Your task to perform on an android device: Open the calendar app, open the side menu, and click the "Day" option Image 0: 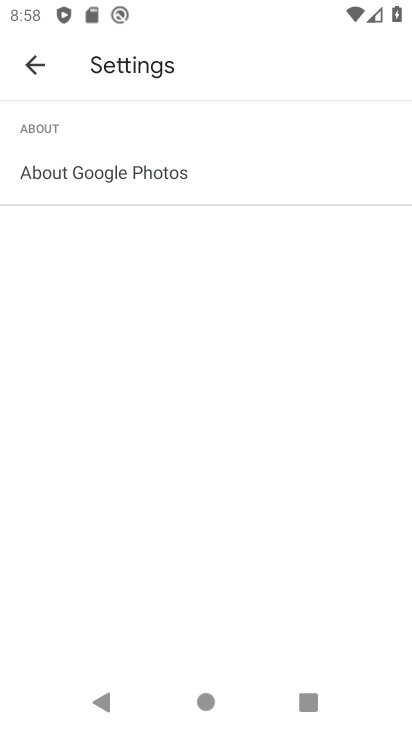
Step 0: press home button
Your task to perform on an android device: Open the calendar app, open the side menu, and click the "Day" option Image 1: 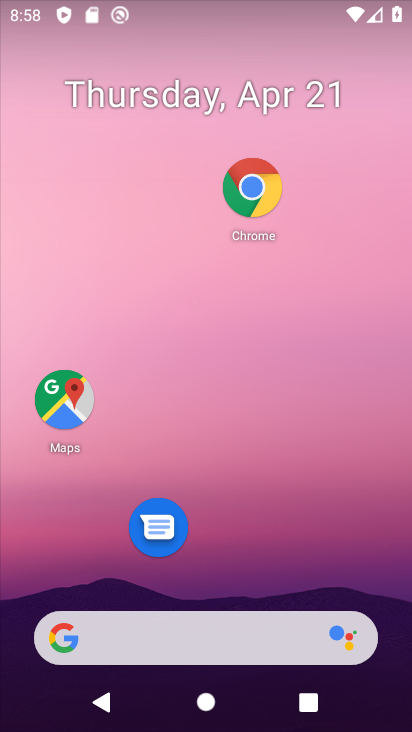
Step 1: drag from (255, 623) to (179, 359)
Your task to perform on an android device: Open the calendar app, open the side menu, and click the "Day" option Image 2: 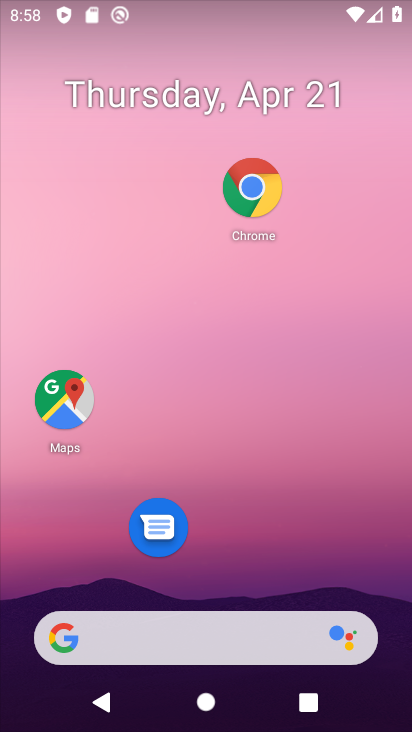
Step 2: drag from (202, 501) to (192, 180)
Your task to perform on an android device: Open the calendar app, open the side menu, and click the "Day" option Image 3: 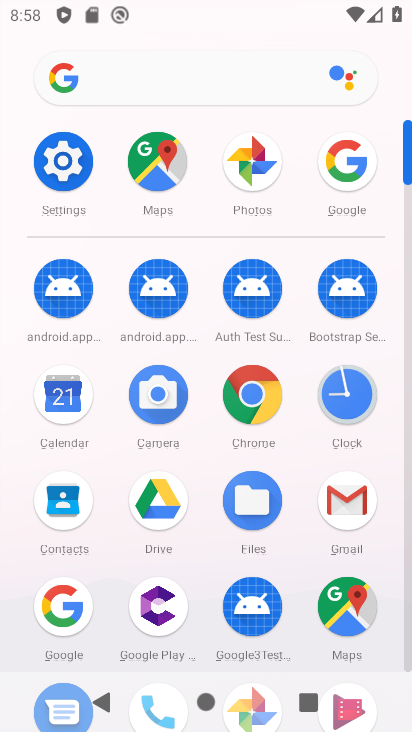
Step 3: click (407, 363)
Your task to perform on an android device: Open the calendar app, open the side menu, and click the "Day" option Image 4: 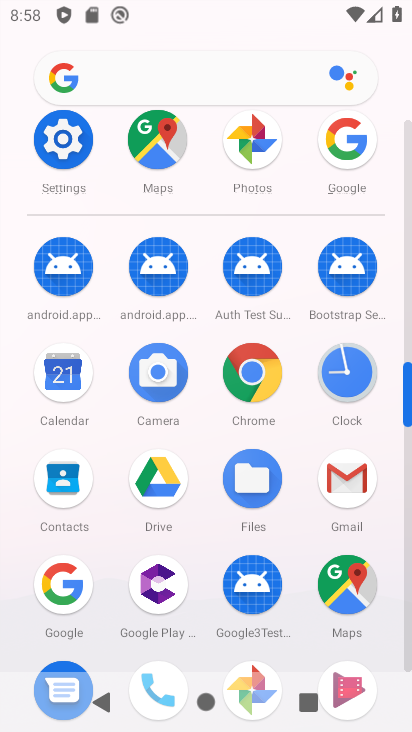
Step 4: click (407, 363)
Your task to perform on an android device: Open the calendar app, open the side menu, and click the "Day" option Image 5: 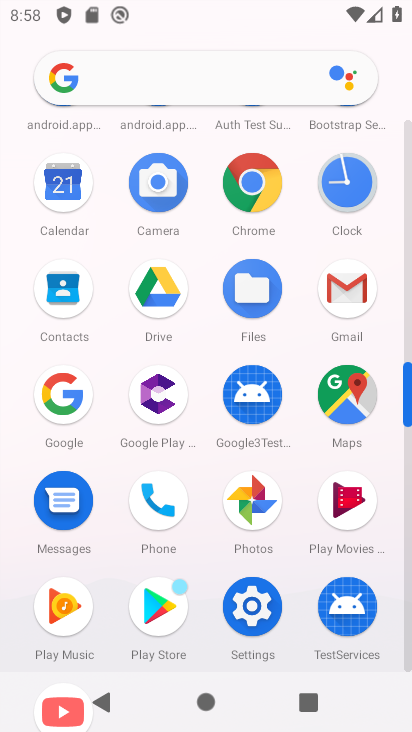
Step 5: click (70, 197)
Your task to perform on an android device: Open the calendar app, open the side menu, and click the "Day" option Image 6: 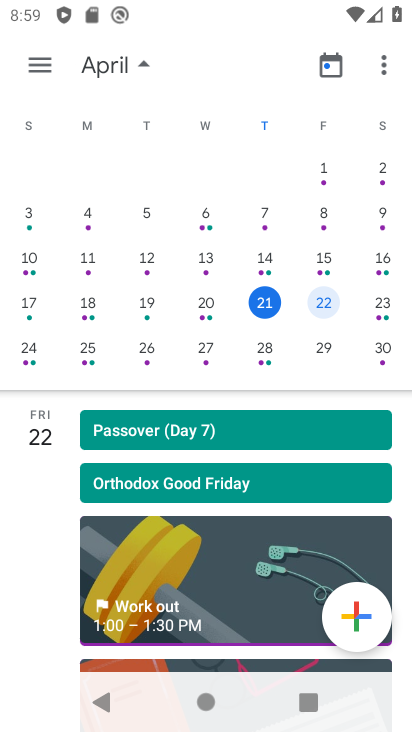
Step 6: click (47, 70)
Your task to perform on an android device: Open the calendar app, open the side menu, and click the "Day" option Image 7: 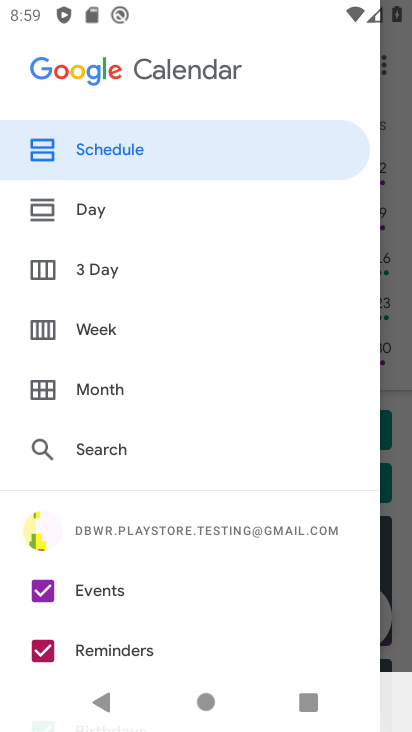
Step 7: click (92, 212)
Your task to perform on an android device: Open the calendar app, open the side menu, and click the "Day" option Image 8: 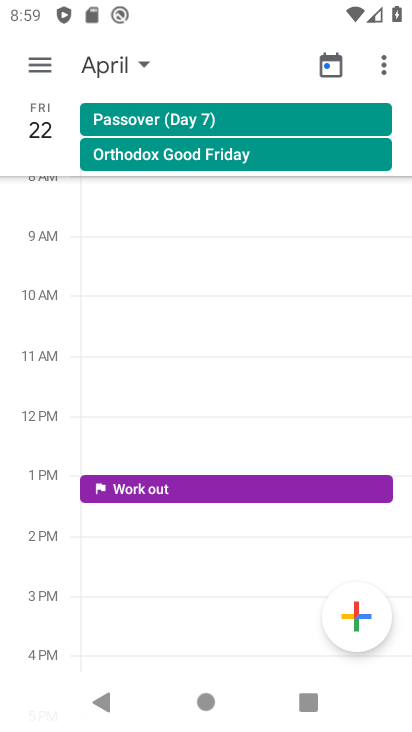
Step 8: task complete